Your task to perform on an android device: empty trash in google photos Image 0: 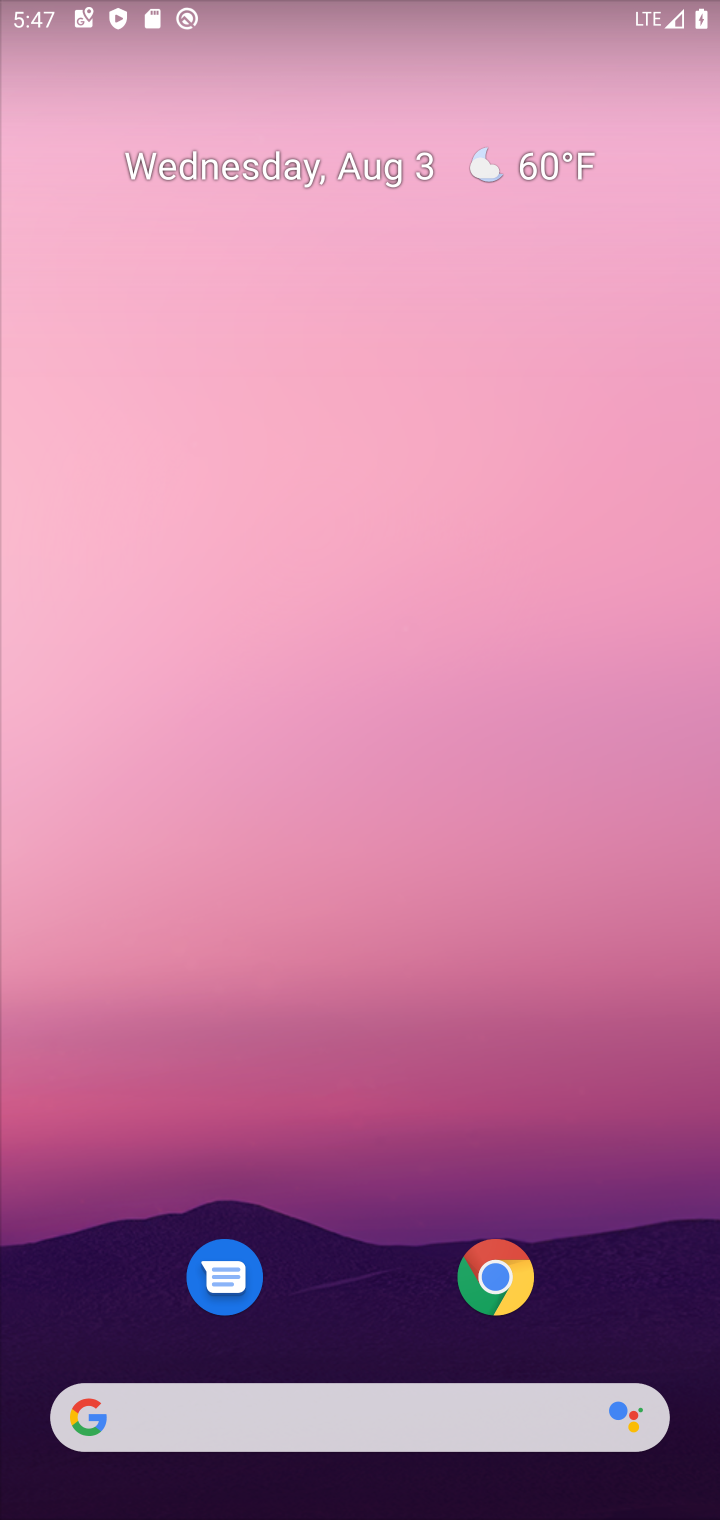
Step 0: drag from (319, 1271) to (475, 14)
Your task to perform on an android device: empty trash in google photos Image 1: 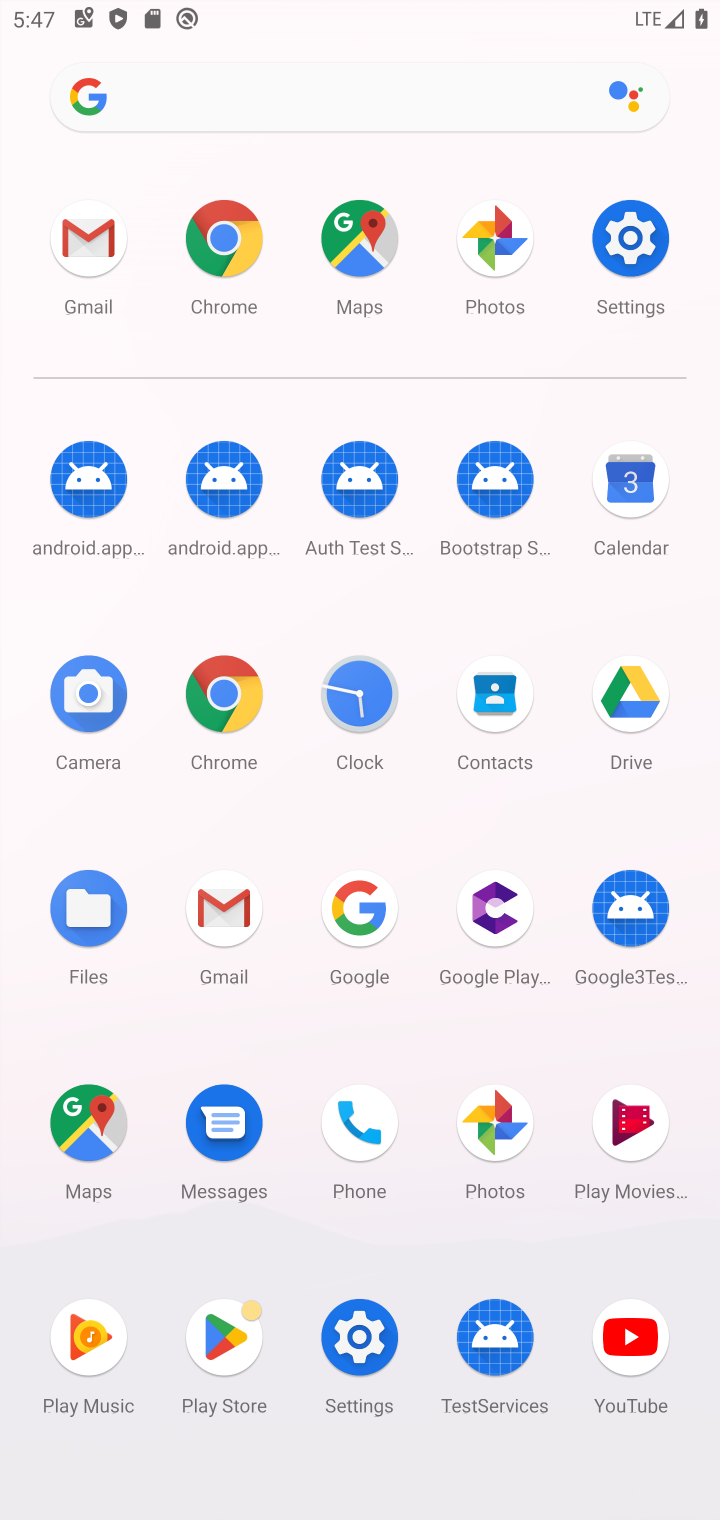
Step 1: click (516, 240)
Your task to perform on an android device: empty trash in google photos Image 2: 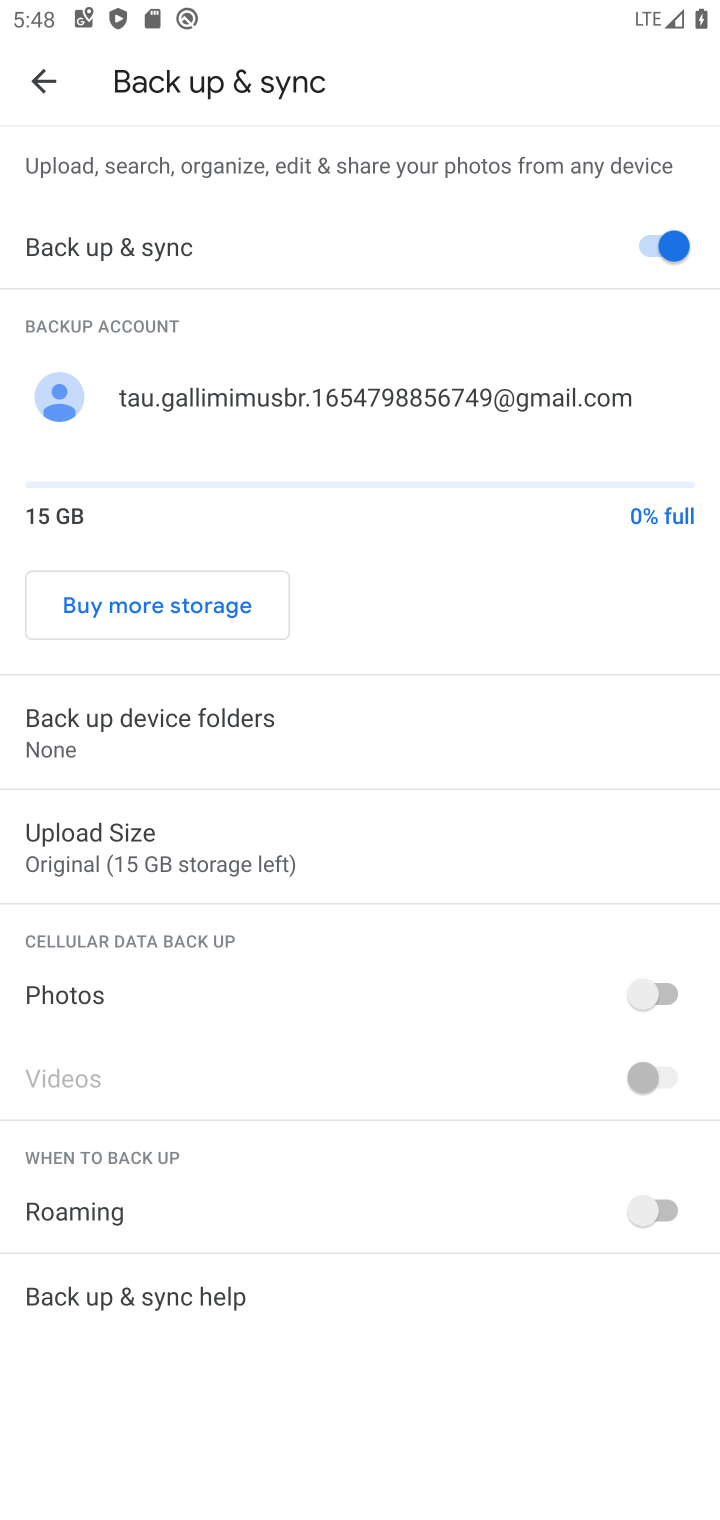
Step 2: click (36, 83)
Your task to perform on an android device: empty trash in google photos Image 3: 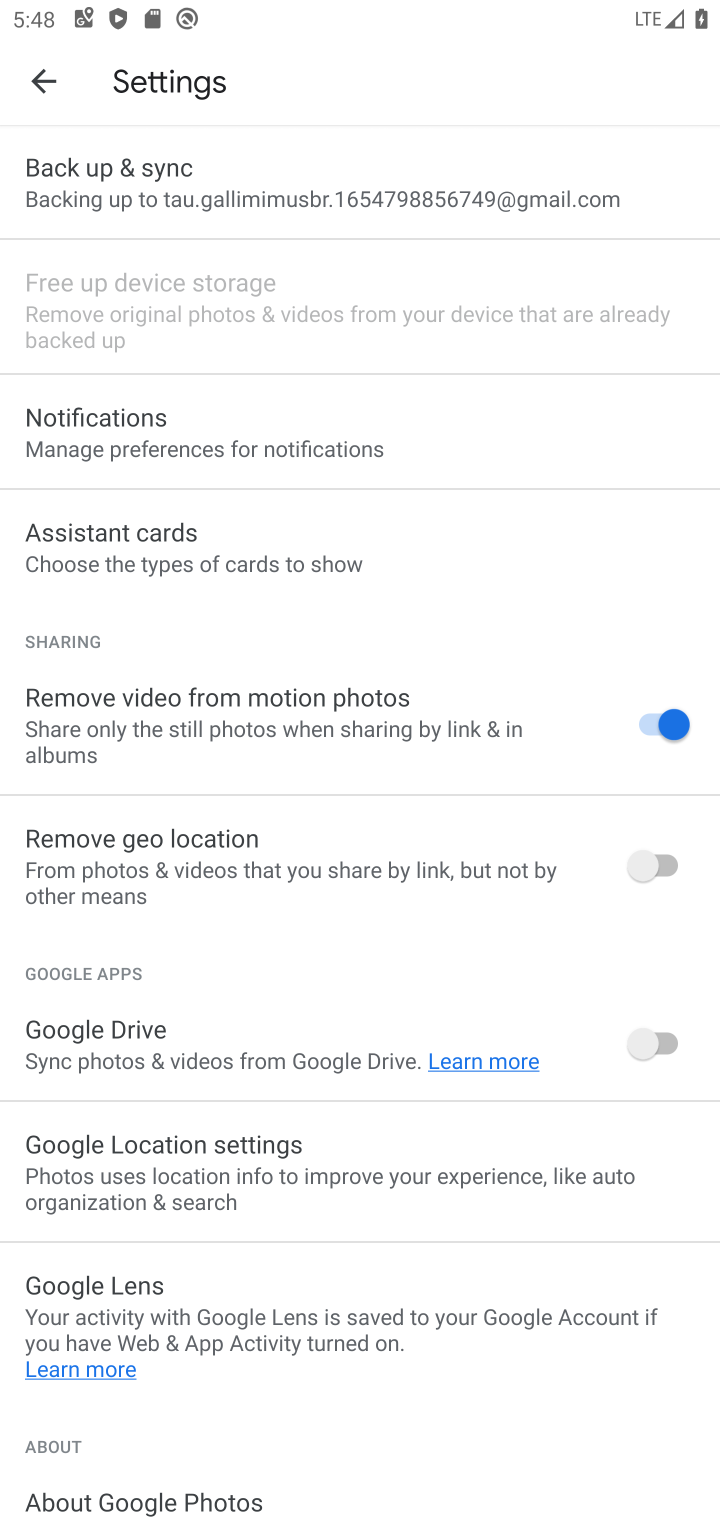
Step 3: click (31, 108)
Your task to perform on an android device: empty trash in google photos Image 4: 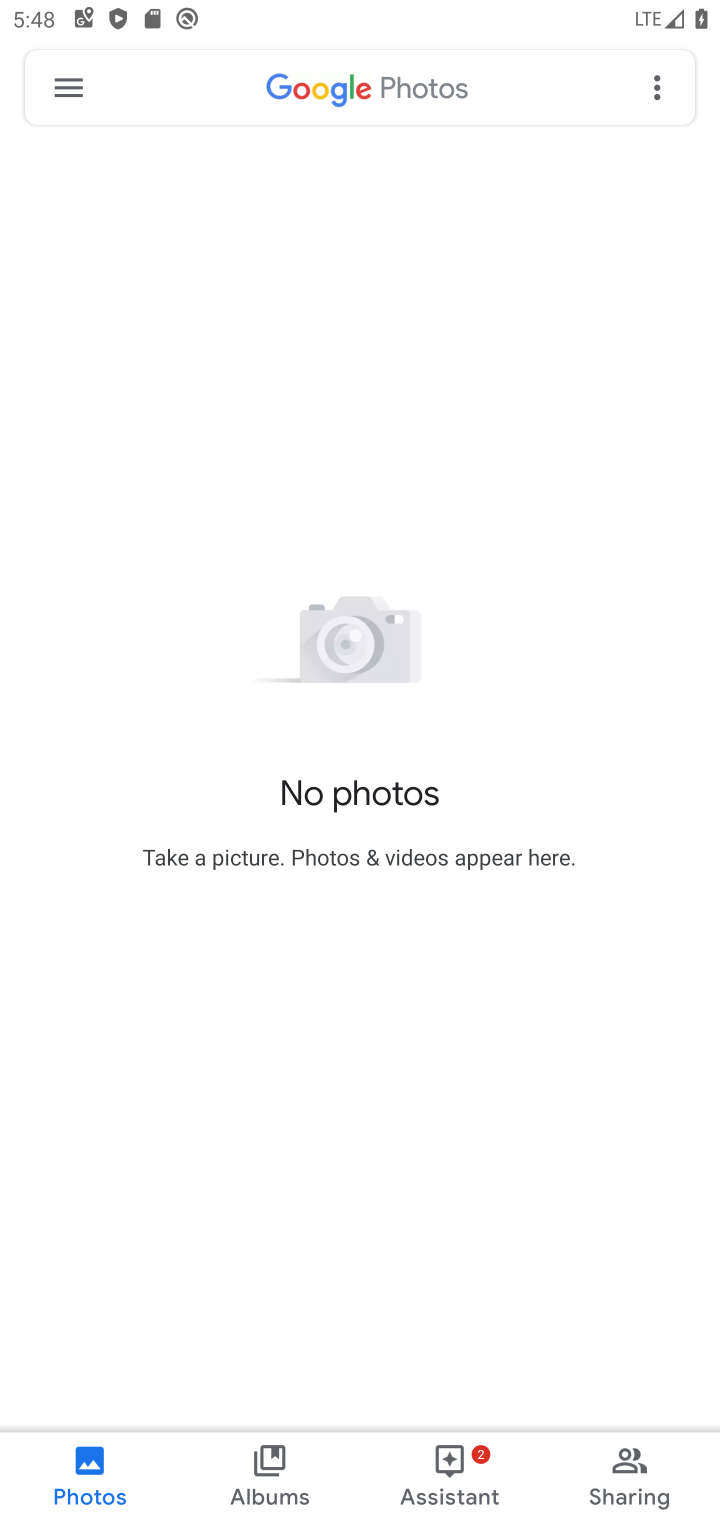
Step 4: click (70, 91)
Your task to perform on an android device: empty trash in google photos Image 5: 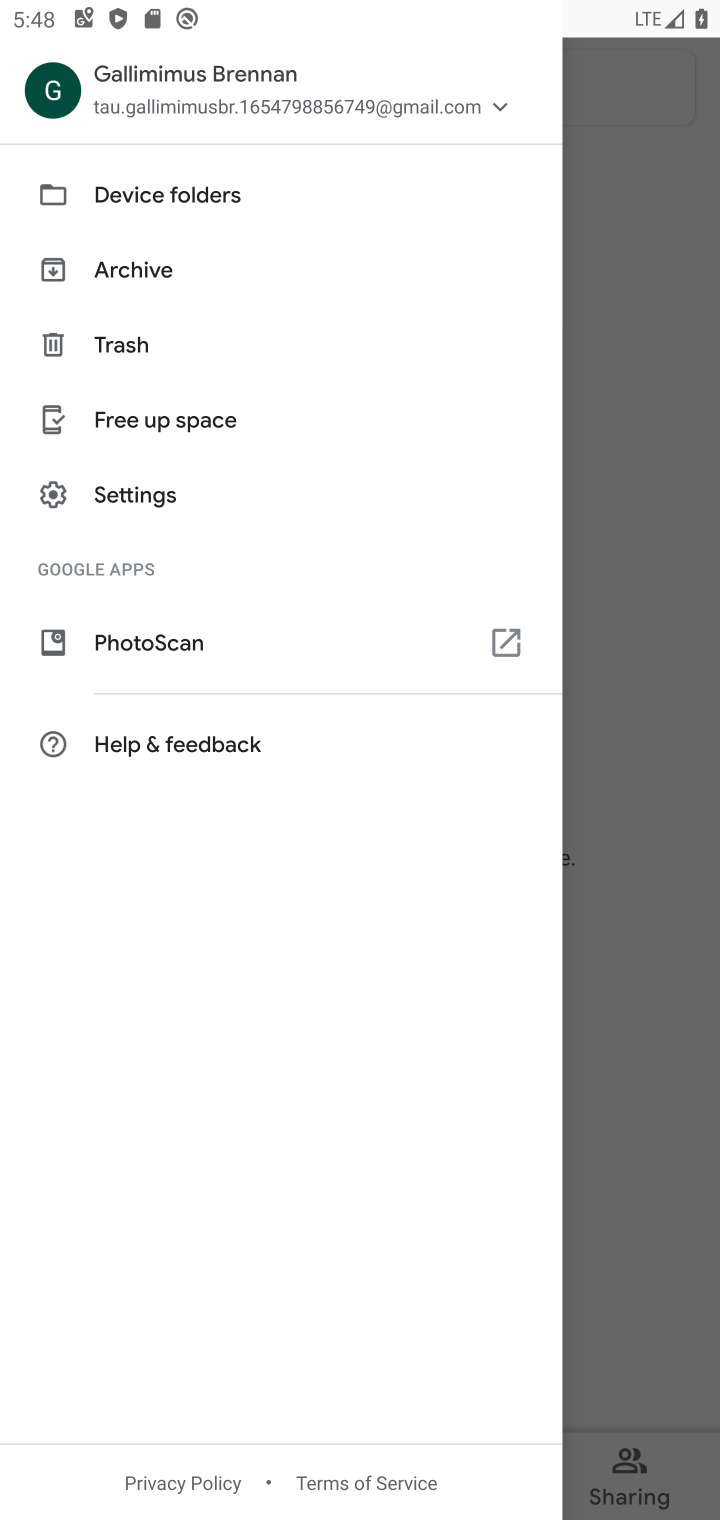
Step 5: click (136, 331)
Your task to perform on an android device: empty trash in google photos Image 6: 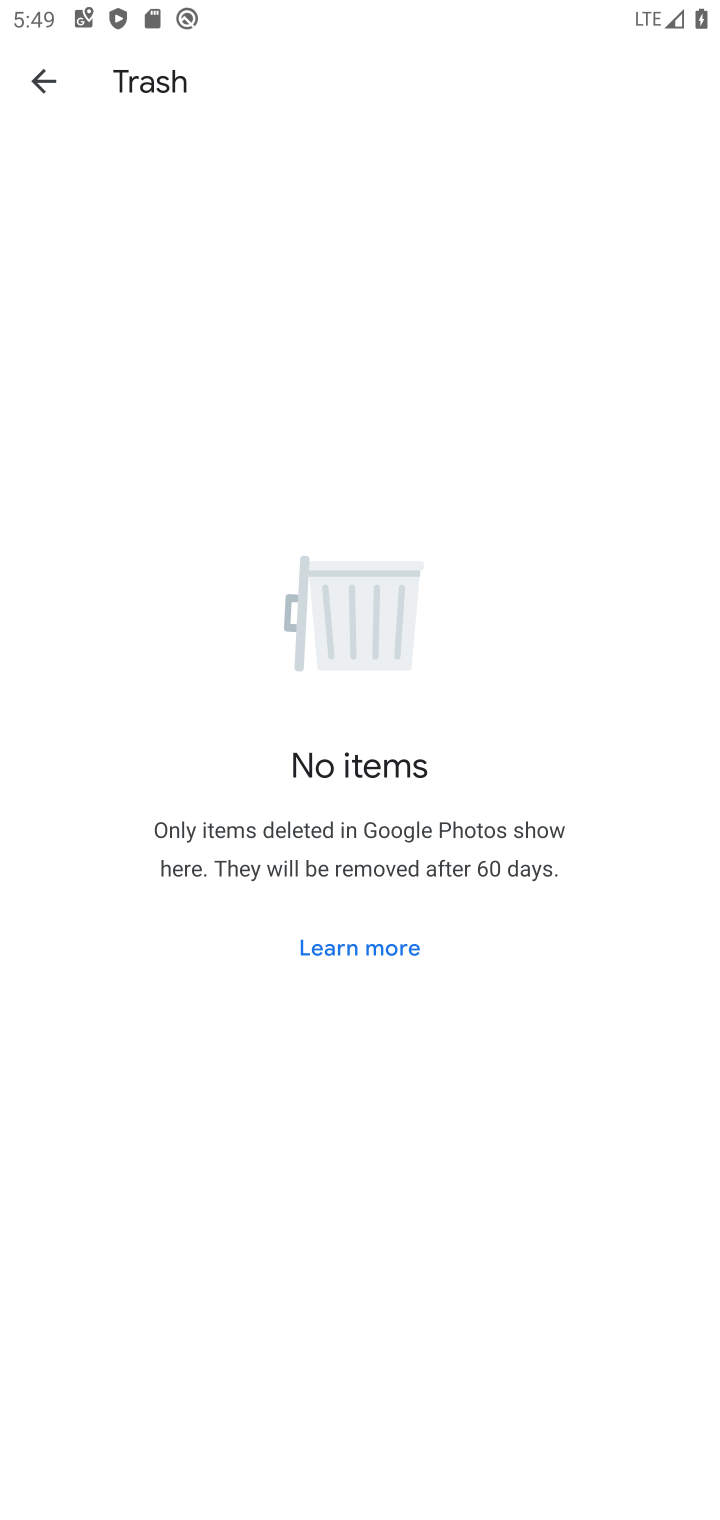
Step 6: task complete